Your task to perform on an android device: When is my next appointment? Image 0: 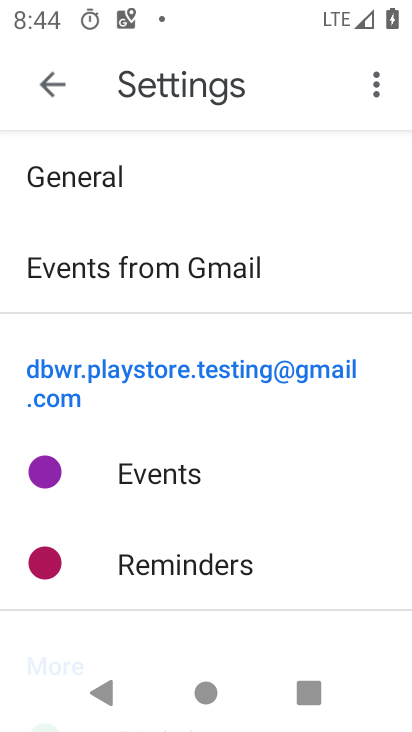
Step 0: press home button
Your task to perform on an android device: When is my next appointment? Image 1: 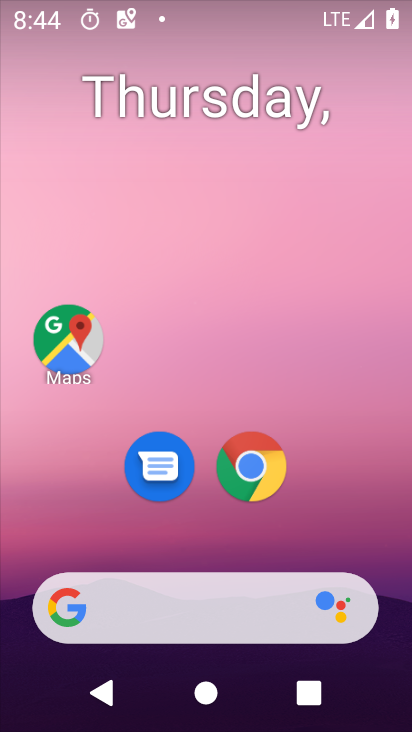
Step 1: drag from (373, 483) to (381, 127)
Your task to perform on an android device: When is my next appointment? Image 2: 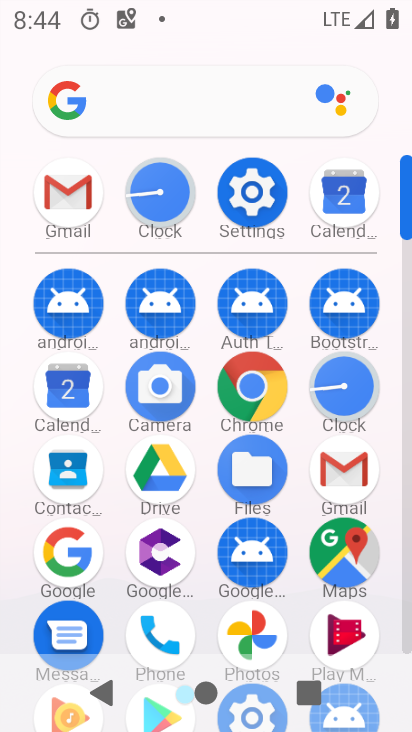
Step 2: click (63, 400)
Your task to perform on an android device: When is my next appointment? Image 3: 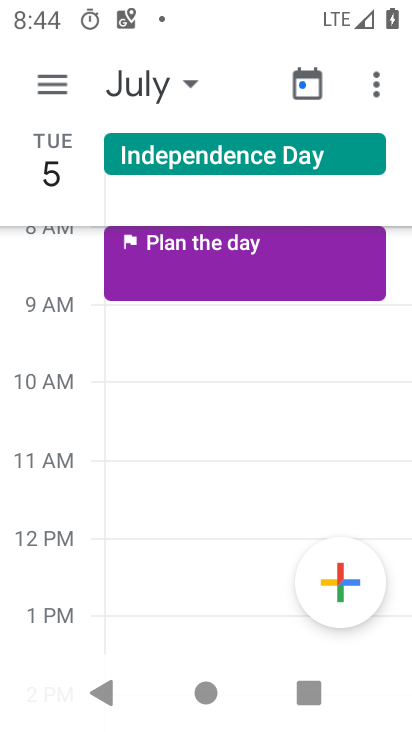
Step 3: click (66, 89)
Your task to perform on an android device: When is my next appointment? Image 4: 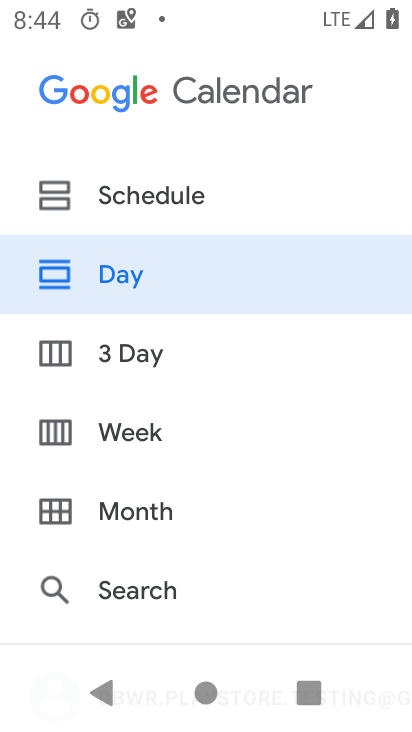
Step 4: click (162, 199)
Your task to perform on an android device: When is my next appointment? Image 5: 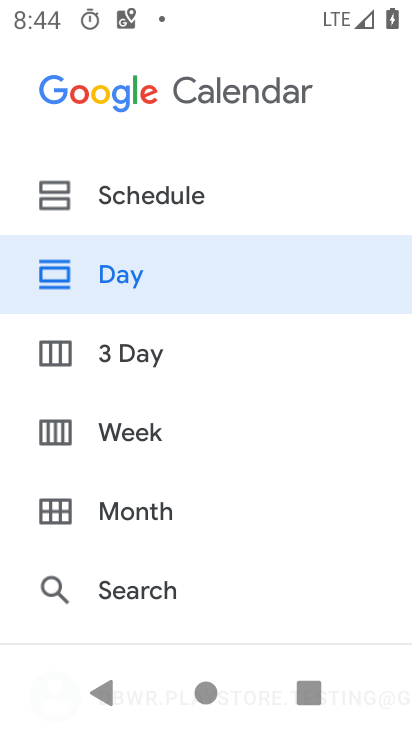
Step 5: click (166, 188)
Your task to perform on an android device: When is my next appointment? Image 6: 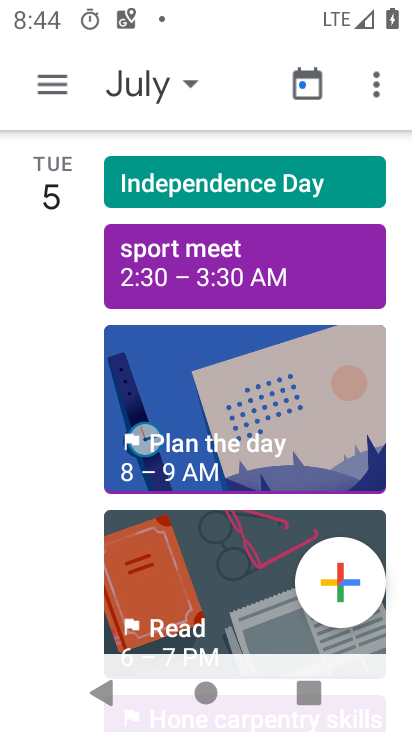
Step 6: click (309, 87)
Your task to perform on an android device: When is my next appointment? Image 7: 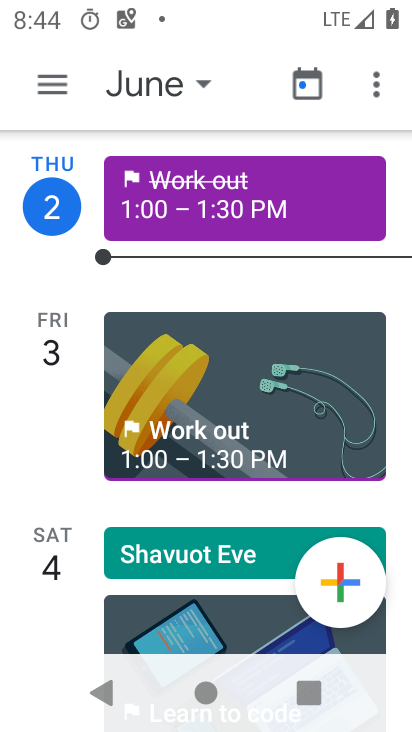
Step 7: click (53, 79)
Your task to perform on an android device: When is my next appointment? Image 8: 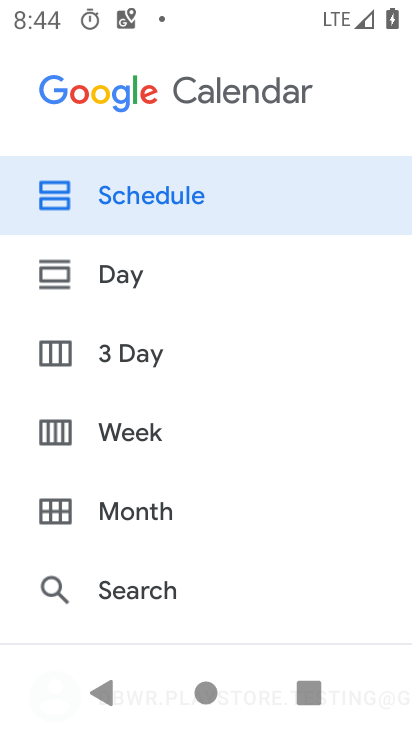
Step 8: click (153, 188)
Your task to perform on an android device: When is my next appointment? Image 9: 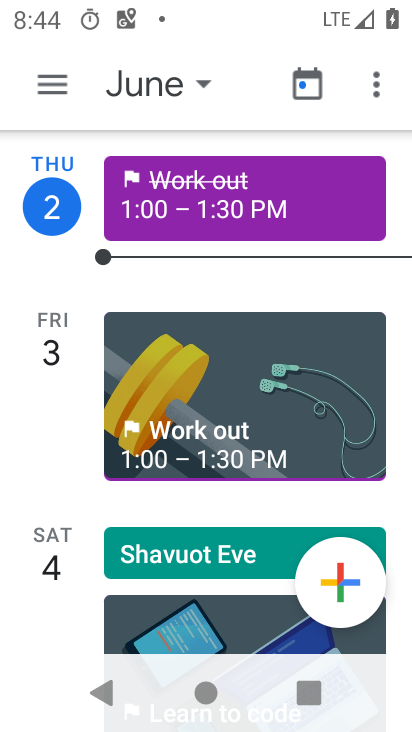
Step 9: task complete